Your task to perform on an android device: Open the stopwatch Image 0: 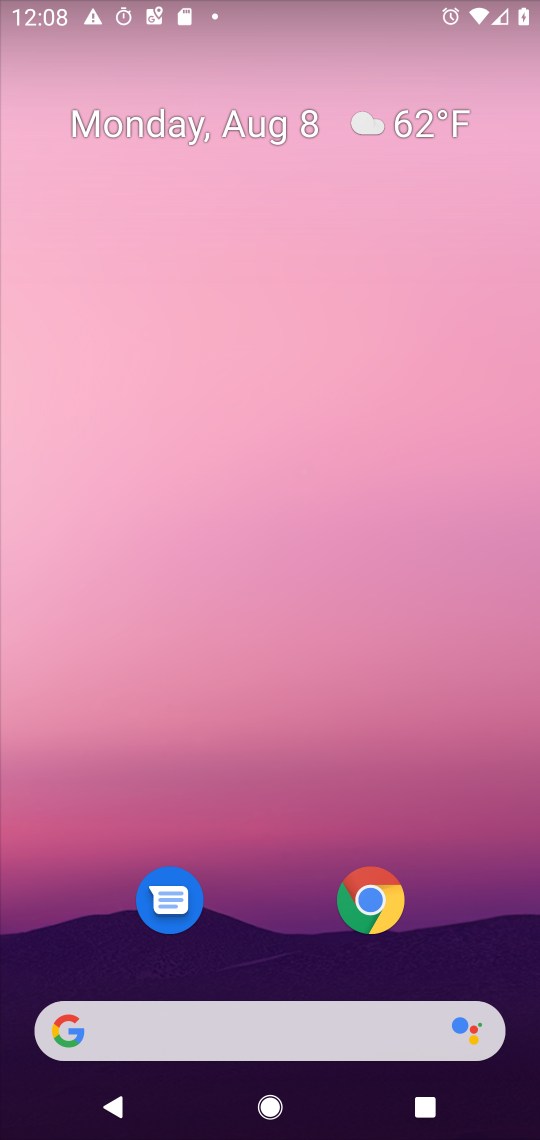
Step 0: drag from (285, 942) to (370, 63)
Your task to perform on an android device: Open the stopwatch Image 1: 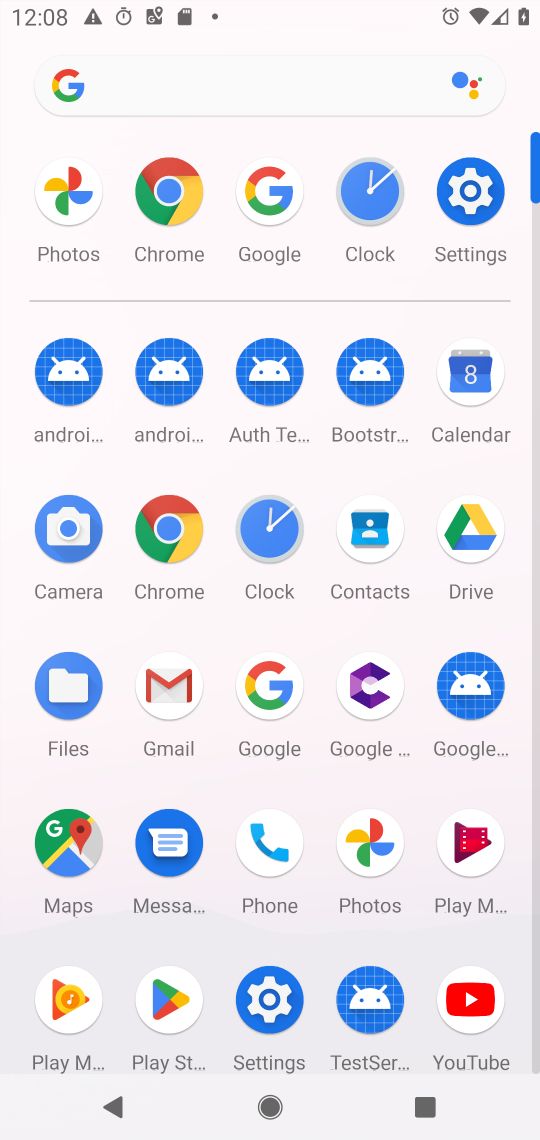
Step 1: click (365, 172)
Your task to perform on an android device: Open the stopwatch Image 2: 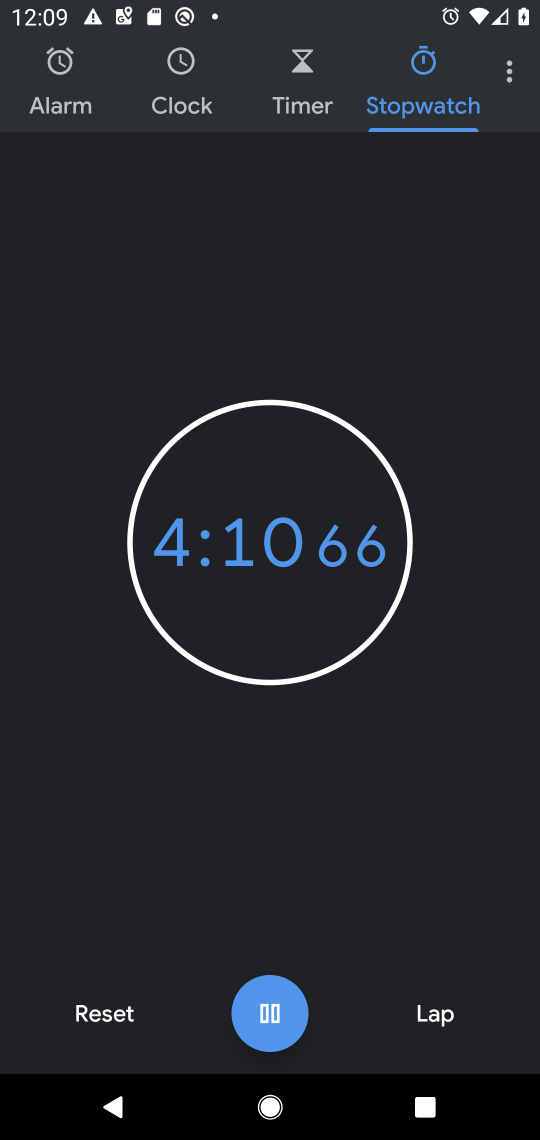
Step 2: task complete